Your task to perform on an android device: turn off sleep mode Image 0: 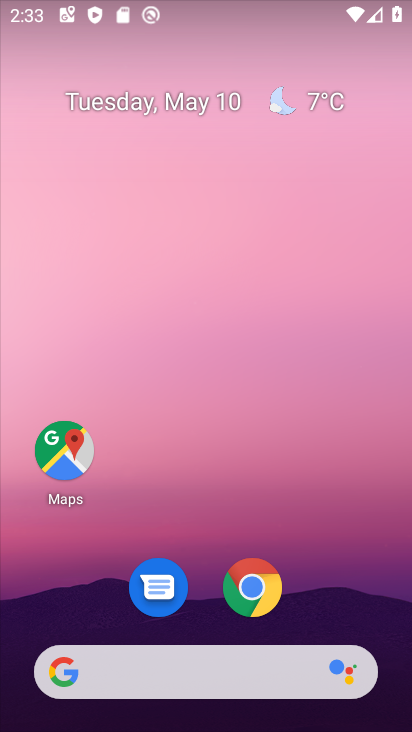
Step 0: drag from (336, 577) to (276, 94)
Your task to perform on an android device: turn off sleep mode Image 1: 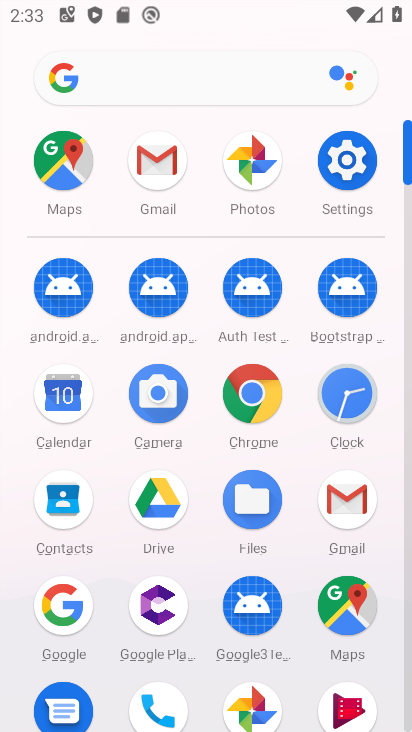
Step 1: click (350, 157)
Your task to perform on an android device: turn off sleep mode Image 2: 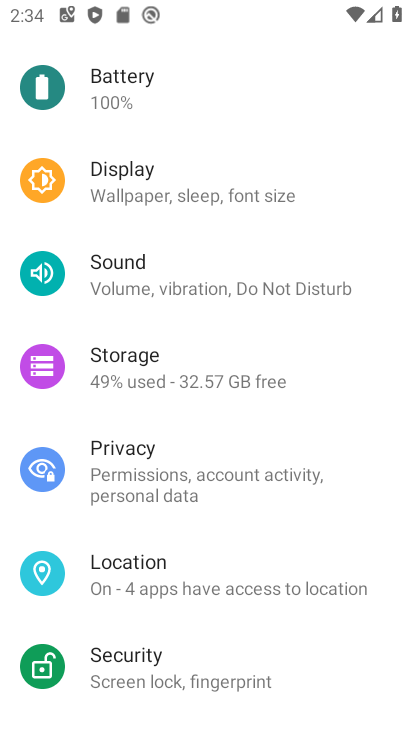
Step 2: drag from (230, 400) to (215, 312)
Your task to perform on an android device: turn off sleep mode Image 3: 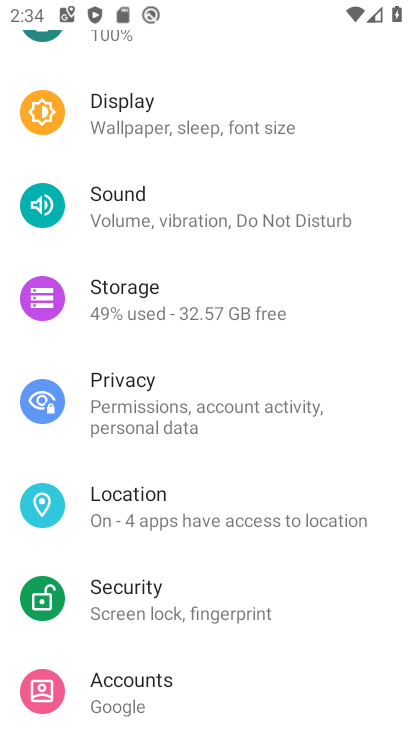
Step 3: drag from (213, 670) to (189, 294)
Your task to perform on an android device: turn off sleep mode Image 4: 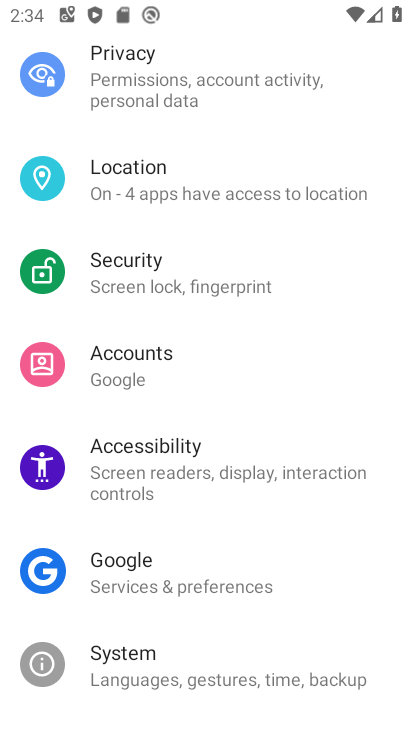
Step 4: drag from (247, 141) to (220, 585)
Your task to perform on an android device: turn off sleep mode Image 5: 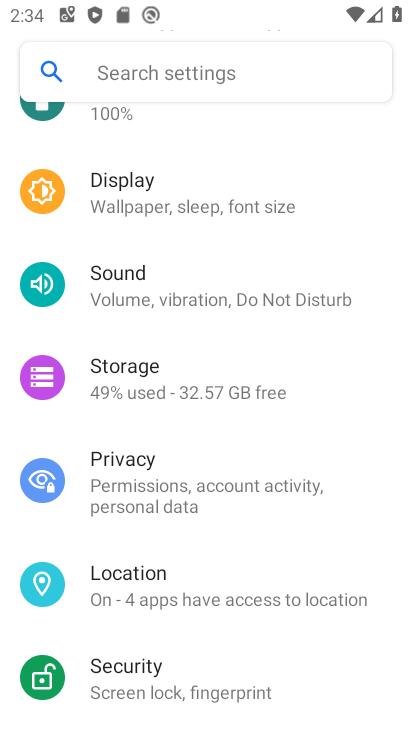
Step 5: click (153, 196)
Your task to perform on an android device: turn off sleep mode Image 6: 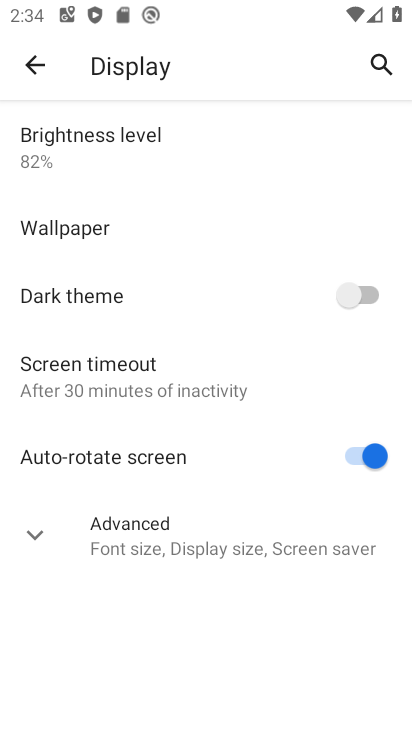
Step 6: click (207, 540)
Your task to perform on an android device: turn off sleep mode Image 7: 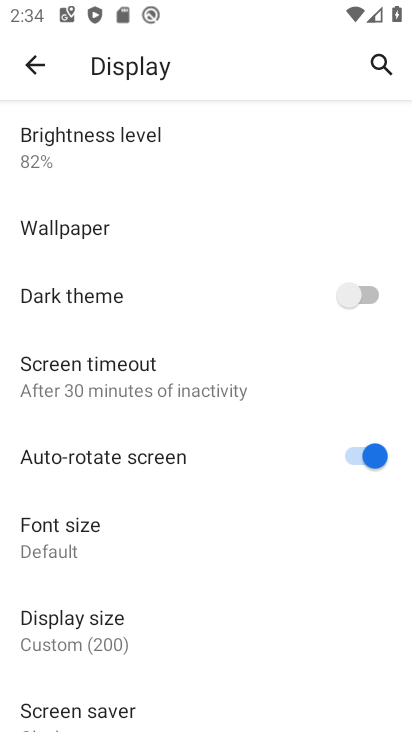
Step 7: task complete